Your task to perform on an android device: Show me popular games on the Play Store Image 0: 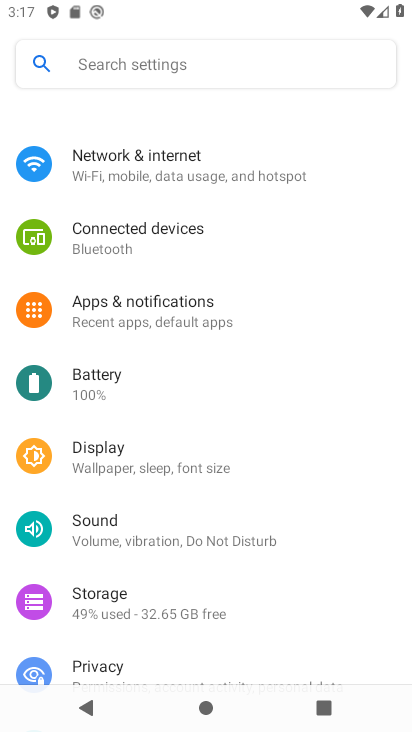
Step 0: press home button
Your task to perform on an android device: Show me popular games on the Play Store Image 1: 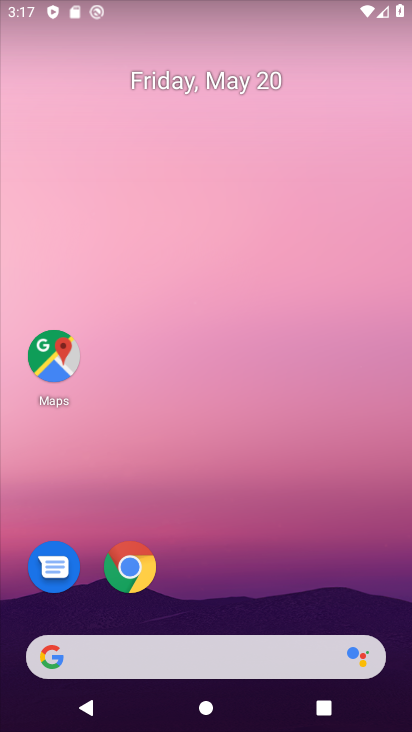
Step 1: drag from (303, 449) to (268, 90)
Your task to perform on an android device: Show me popular games on the Play Store Image 2: 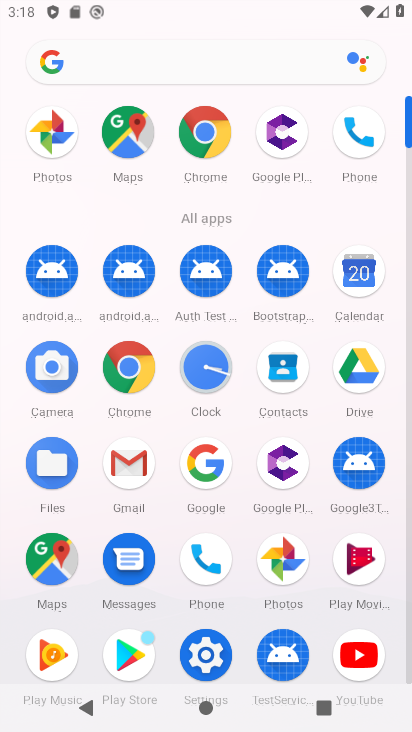
Step 2: drag from (395, 612) to (362, 305)
Your task to perform on an android device: Show me popular games on the Play Store Image 3: 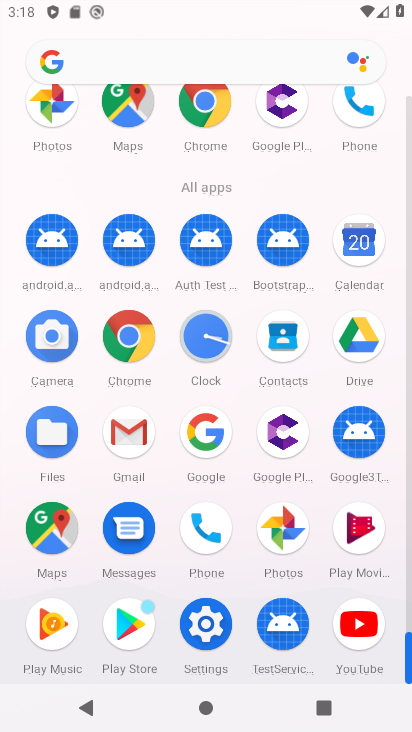
Step 3: click (122, 611)
Your task to perform on an android device: Show me popular games on the Play Store Image 4: 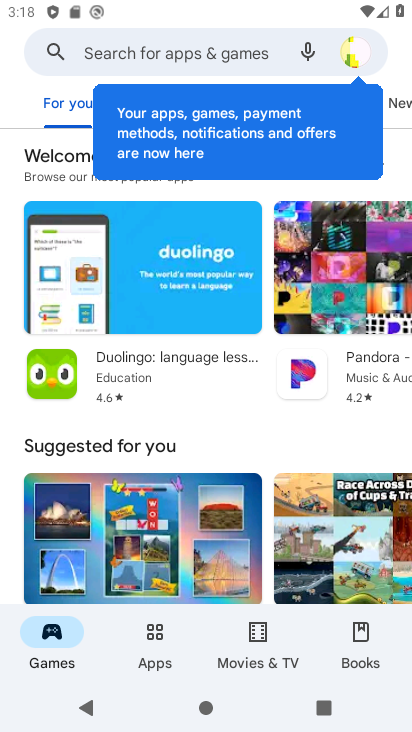
Step 4: click (184, 46)
Your task to perform on an android device: Show me popular games on the Play Store Image 5: 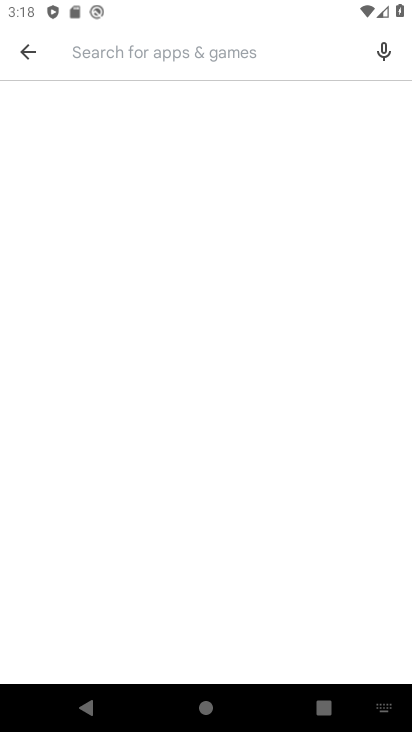
Step 5: type "popular "
Your task to perform on an android device: Show me popular games on the Play Store Image 6: 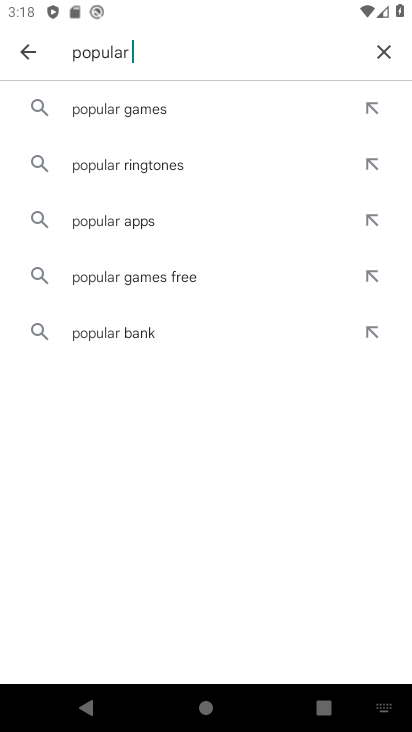
Step 6: click (155, 115)
Your task to perform on an android device: Show me popular games on the Play Store Image 7: 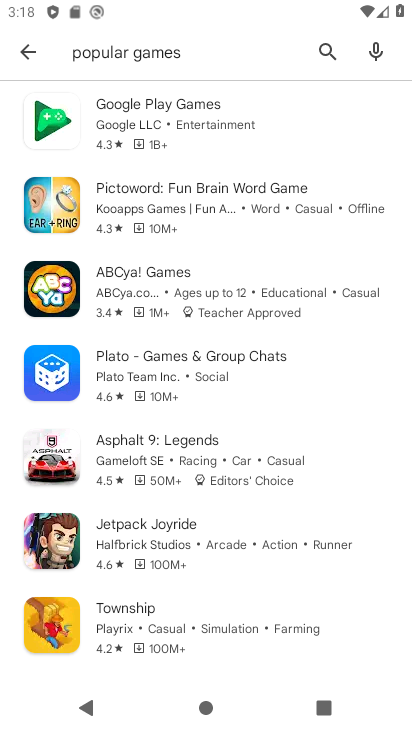
Step 7: task complete